Your task to perform on an android device: Go to network settings Image 0: 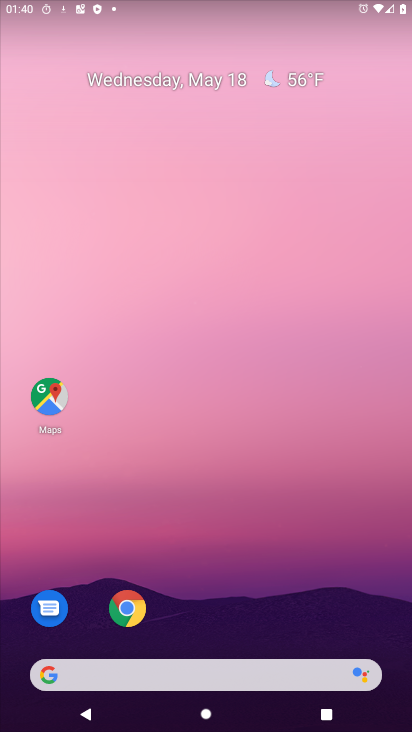
Step 0: press back button
Your task to perform on an android device: Go to network settings Image 1: 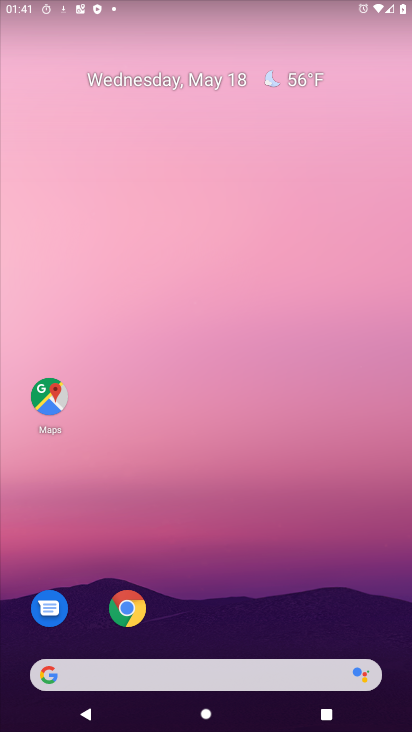
Step 1: drag from (269, 690) to (297, 144)
Your task to perform on an android device: Go to network settings Image 2: 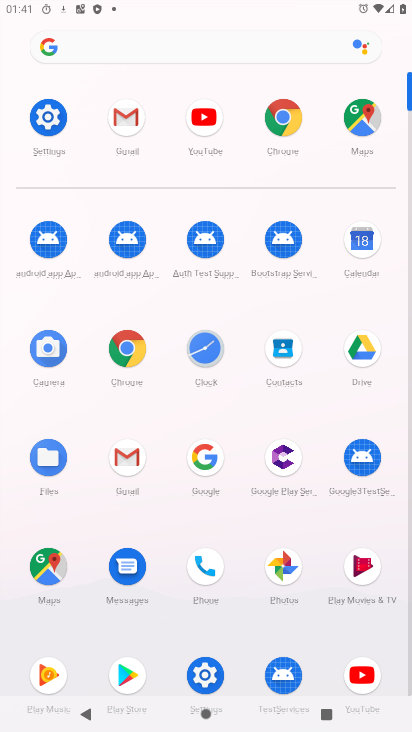
Step 2: click (52, 123)
Your task to perform on an android device: Go to network settings Image 3: 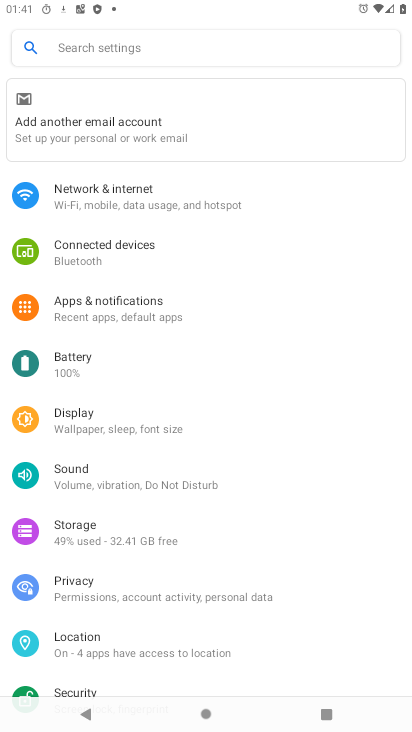
Step 3: click (102, 192)
Your task to perform on an android device: Go to network settings Image 4: 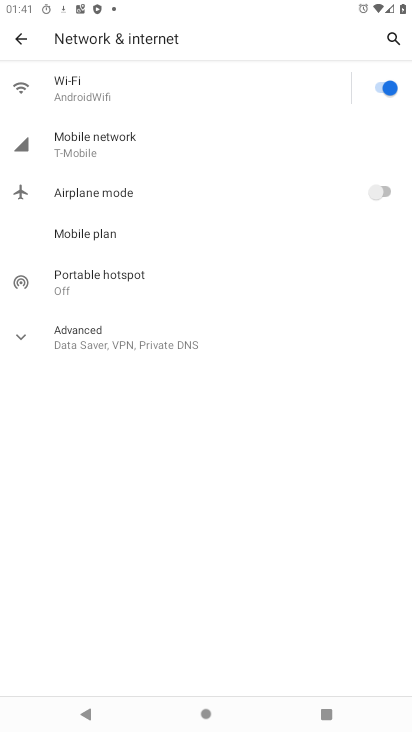
Step 4: task complete